Your task to perform on an android device: Open sound settings Image 0: 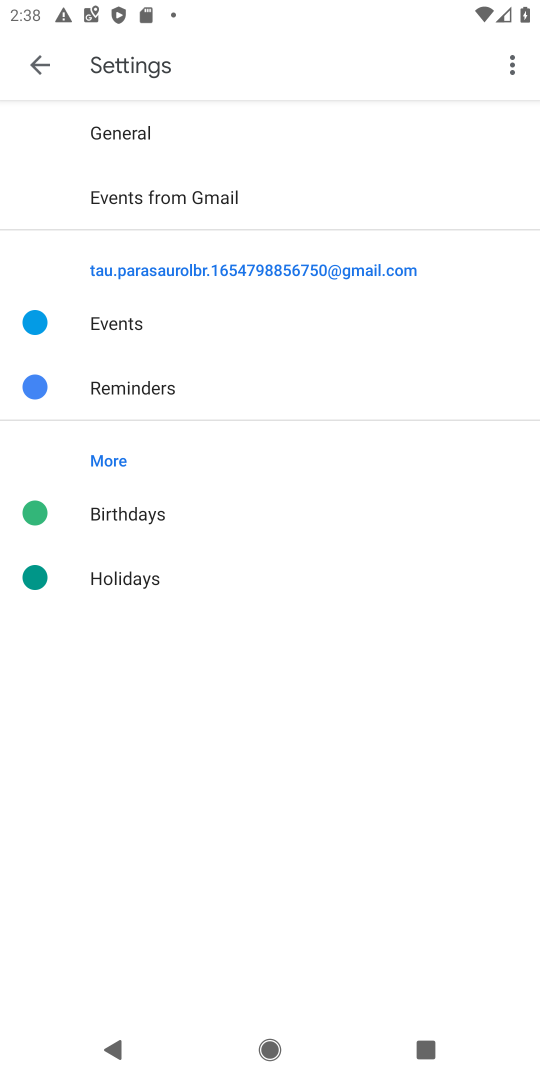
Step 0: press back button
Your task to perform on an android device: Open sound settings Image 1: 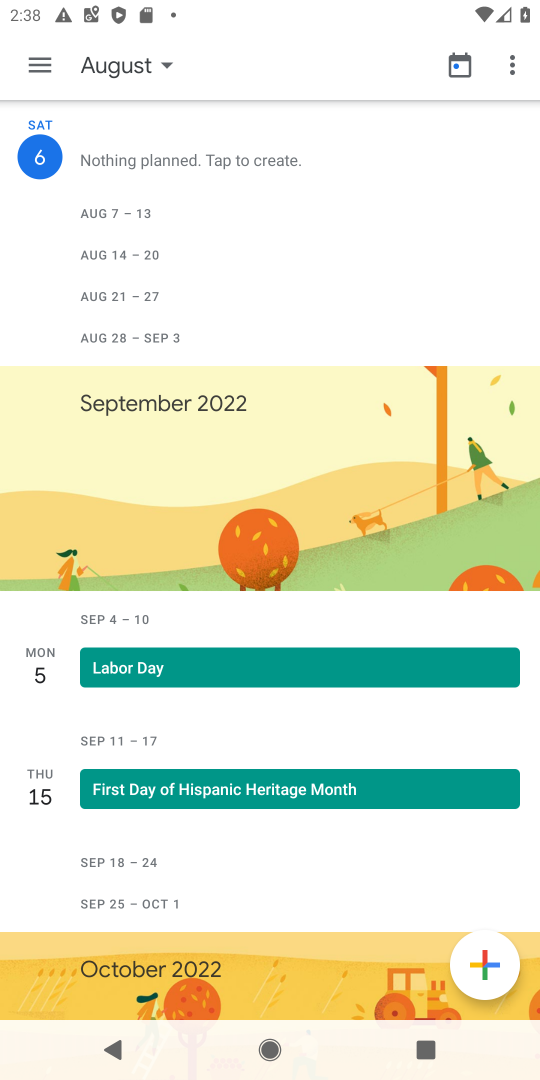
Step 1: press back button
Your task to perform on an android device: Open sound settings Image 2: 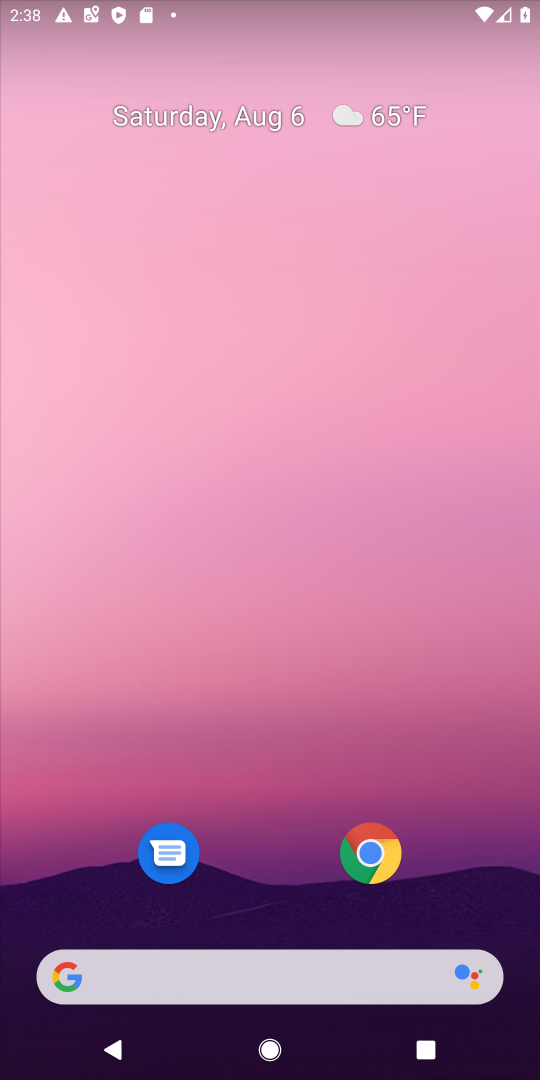
Step 2: drag from (272, 861) to (318, 222)
Your task to perform on an android device: Open sound settings Image 3: 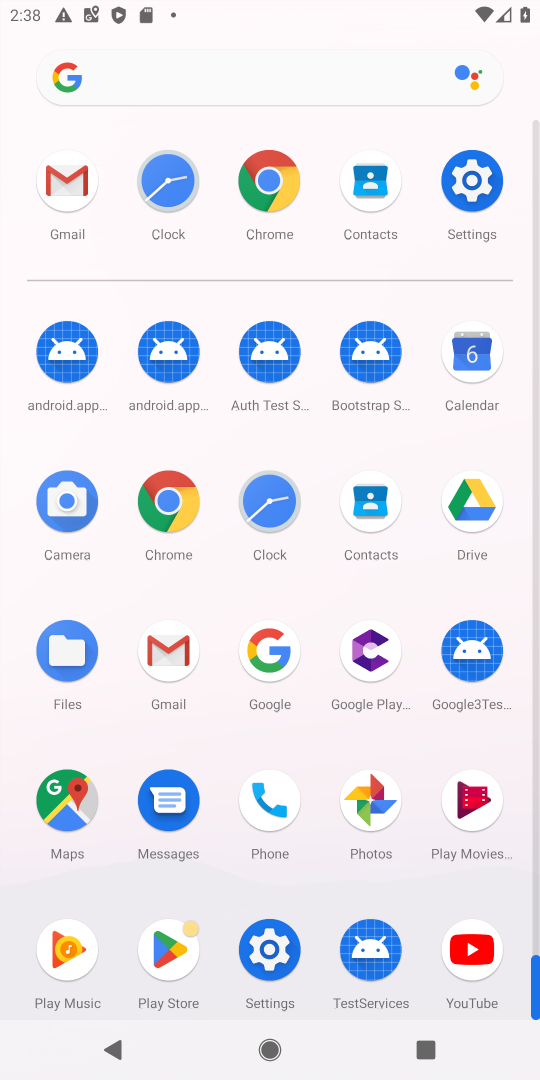
Step 3: click (468, 186)
Your task to perform on an android device: Open sound settings Image 4: 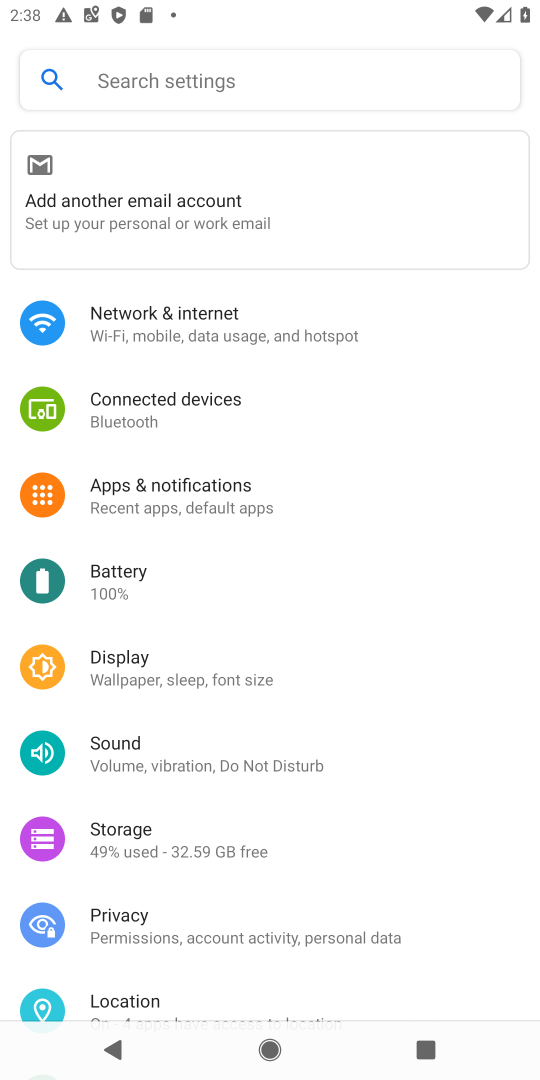
Step 4: click (113, 773)
Your task to perform on an android device: Open sound settings Image 5: 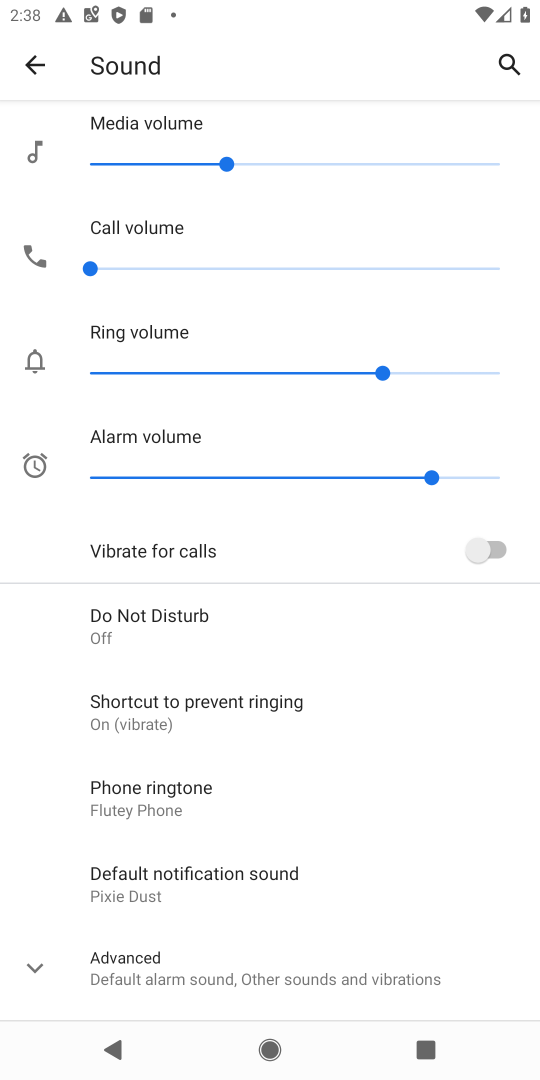
Step 5: task complete